Your task to perform on an android device: install app "Roku - Official Remote Control" Image 0: 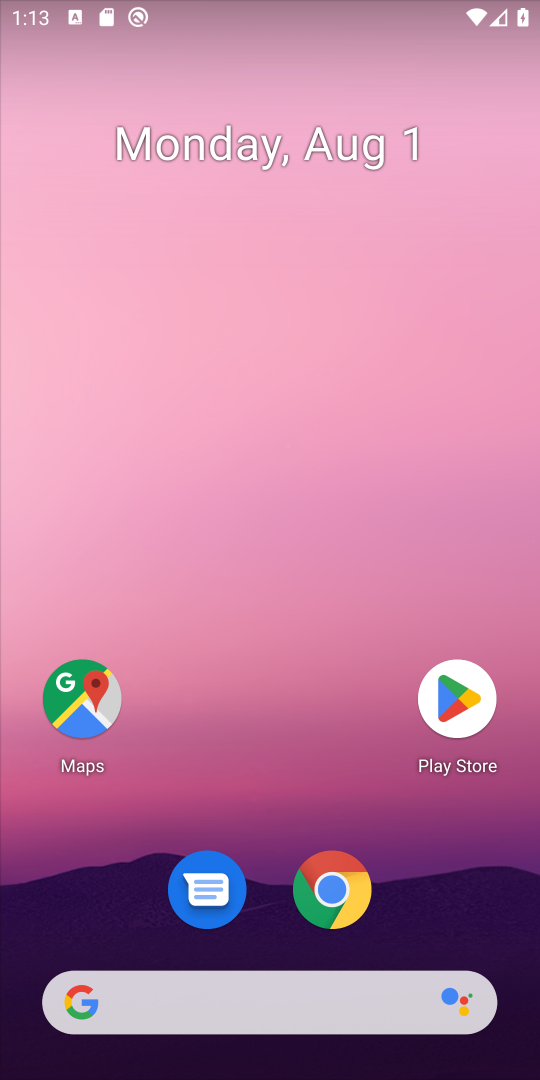
Step 0: click (459, 712)
Your task to perform on an android device: install app "Roku - Official Remote Control" Image 1: 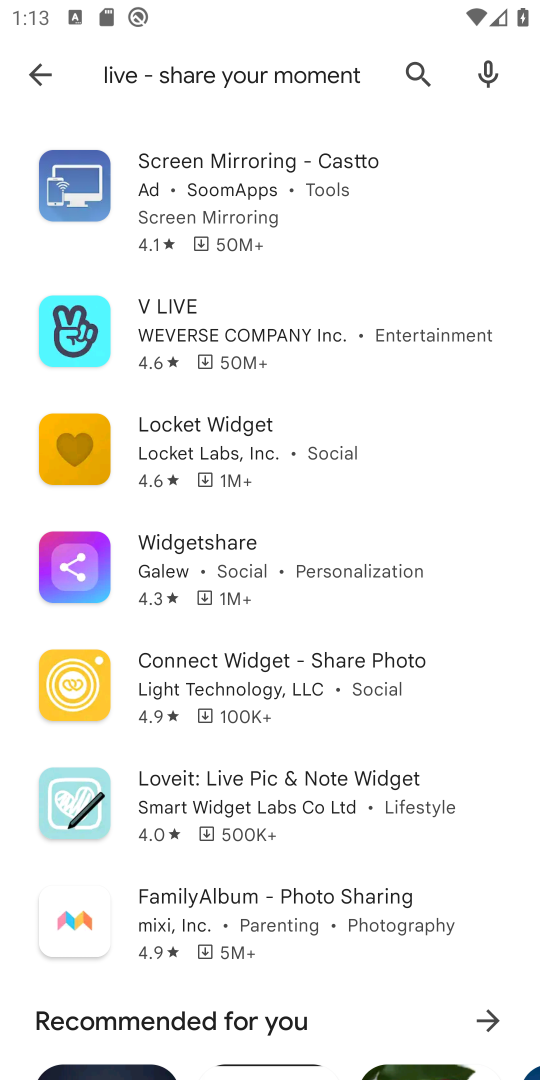
Step 1: click (412, 79)
Your task to perform on an android device: install app "Roku - Official Remote Control" Image 2: 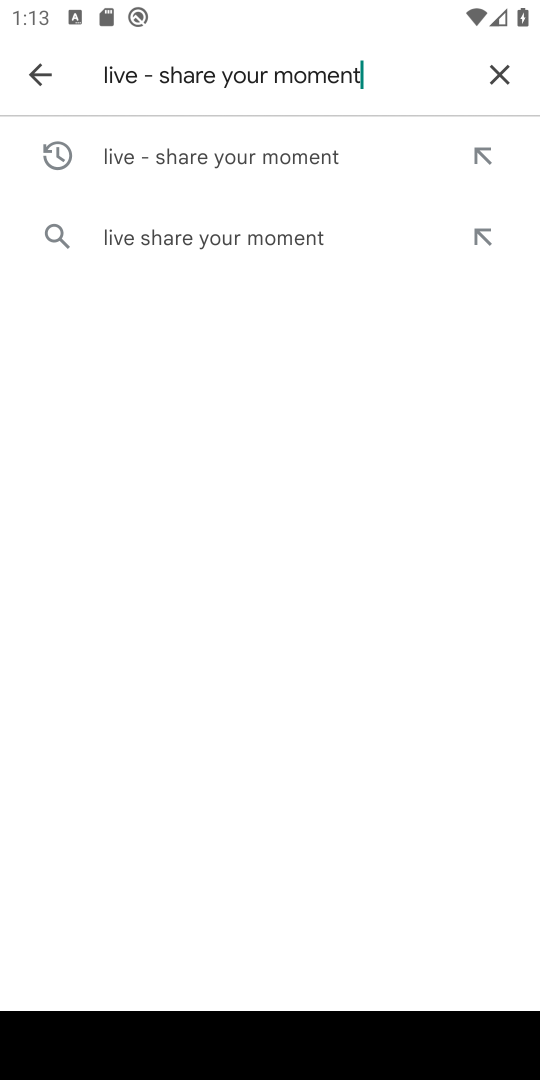
Step 2: click (502, 74)
Your task to perform on an android device: install app "Roku - Official Remote Control" Image 3: 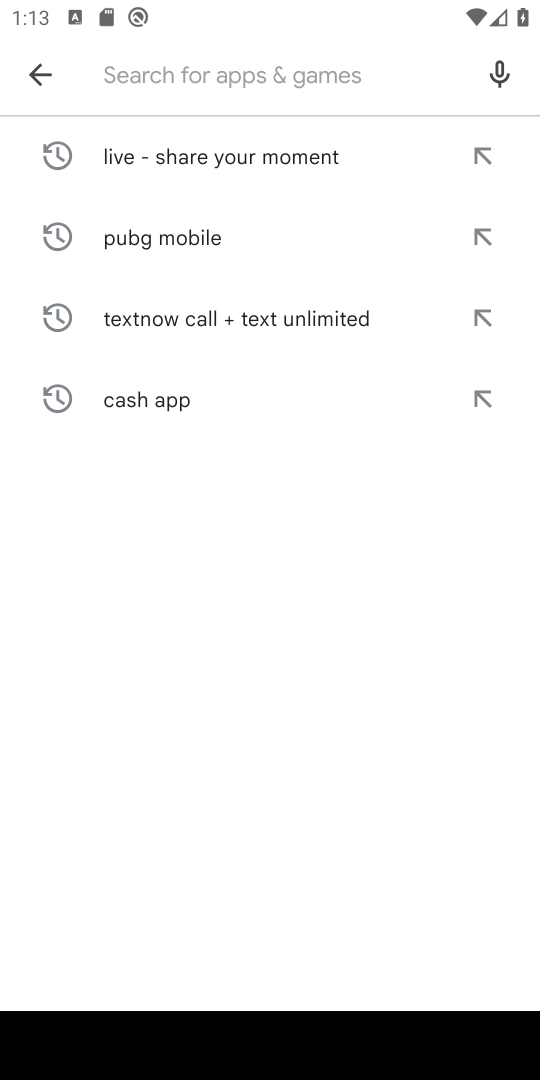
Step 3: type "Roku - Official Remote Control"
Your task to perform on an android device: install app "Roku - Official Remote Control" Image 4: 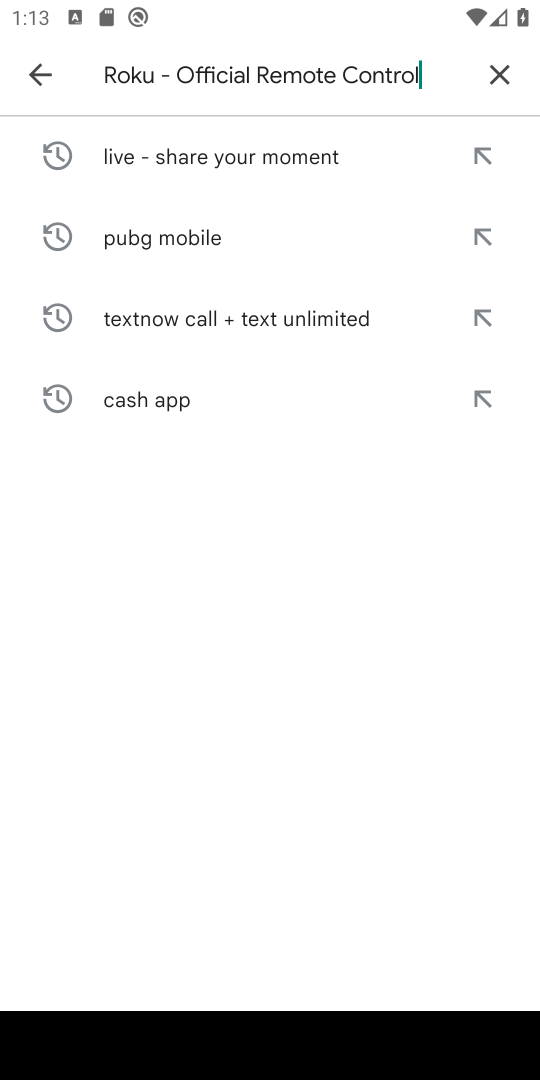
Step 4: type ""
Your task to perform on an android device: install app "Roku - Official Remote Control" Image 5: 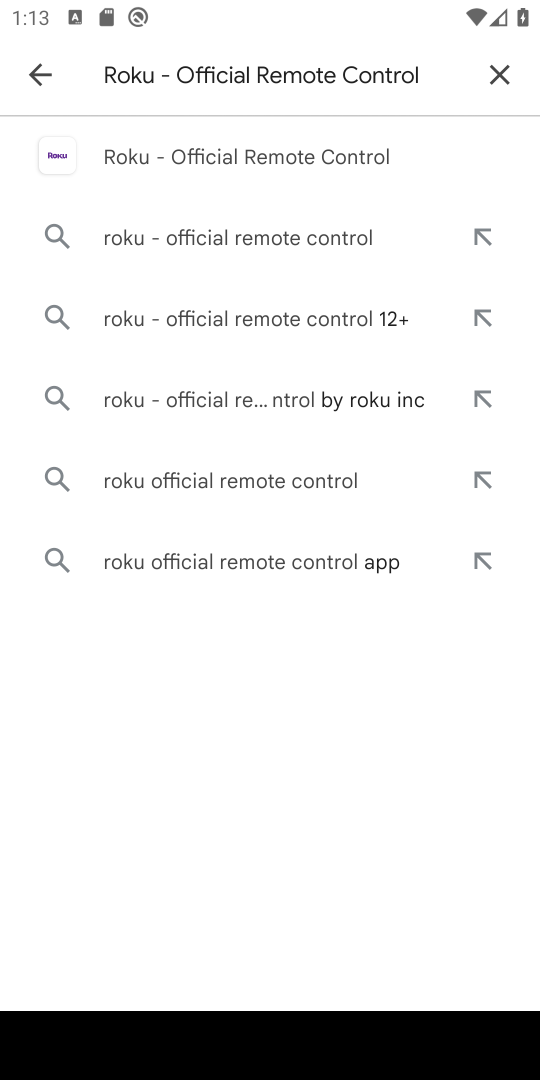
Step 5: click (225, 154)
Your task to perform on an android device: install app "Roku - Official Remote Control" Image 6: 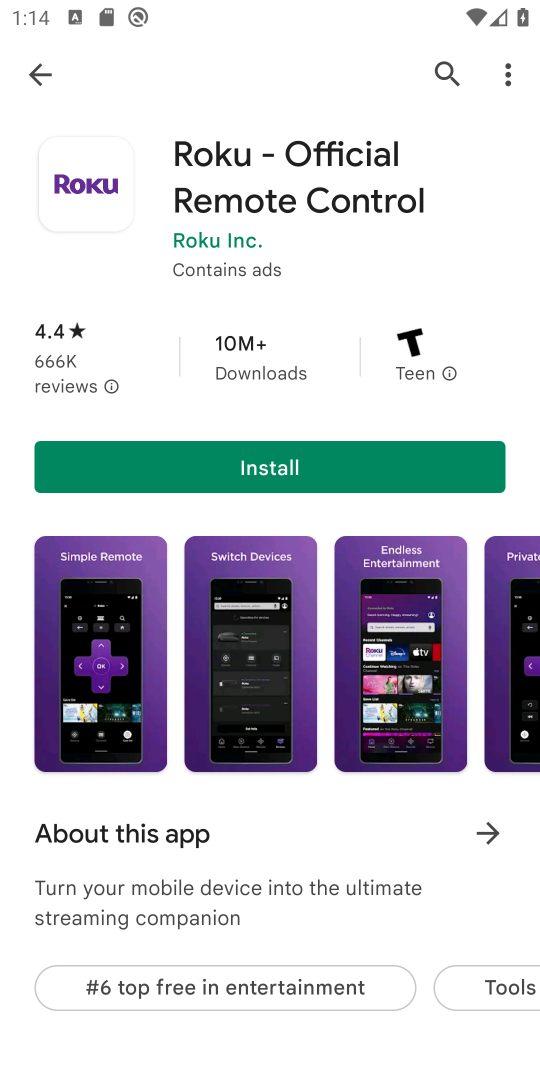
Step 6: click (300, 481)
Your task to perform on an android device: install app "Roku - Official Remote Control" Image 7: 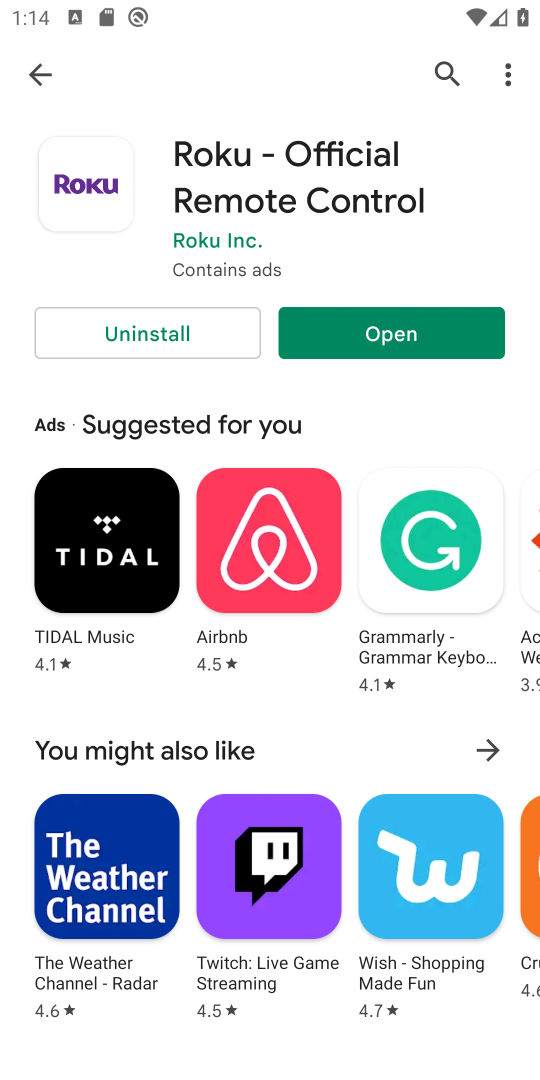
Step 7: task complete